Your task to perform on an android device: Show the shopping cart on costco. Add "dell xps" to the cart on costco Image 0: 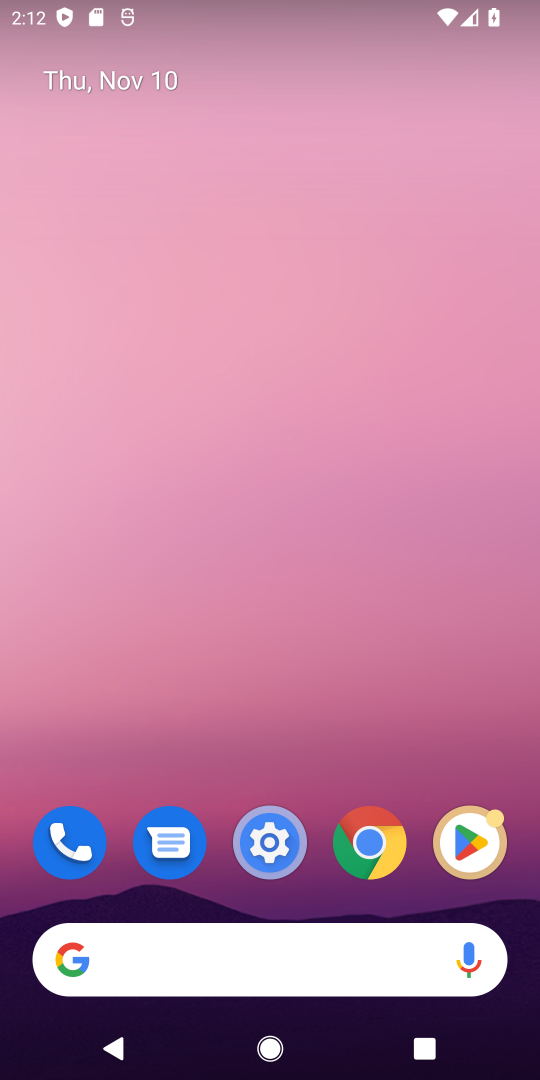
Step 0: press home button
Your task to perform on an android device: Show the shopping cart on costco. Add "dell xps" to the cart on costco Image 1: 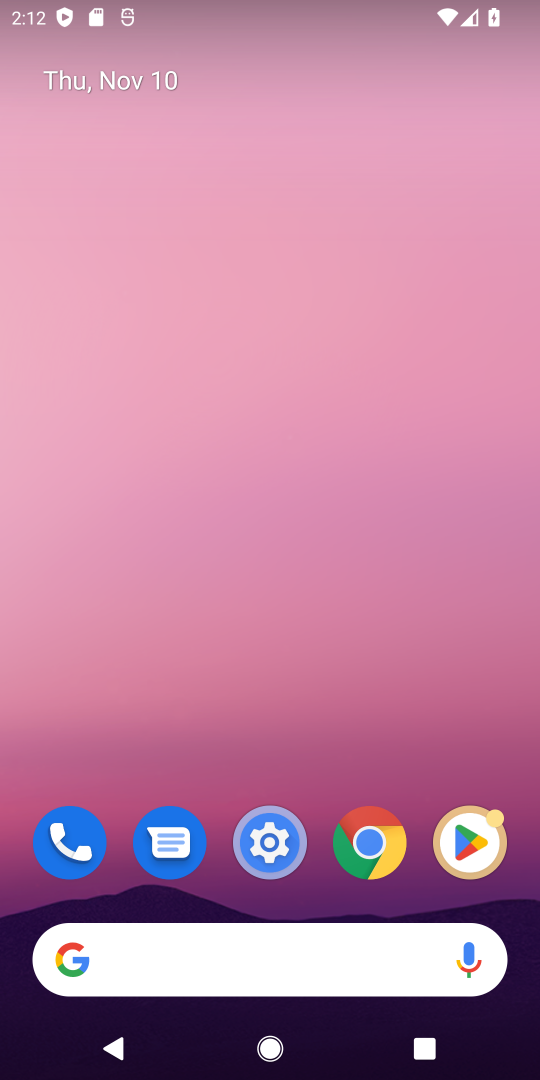
Step 1: click (113, 956)
Your task to perform on an android device: Show the shopping cart on costco. Add "dell xps" to the cart on costco Image 2: 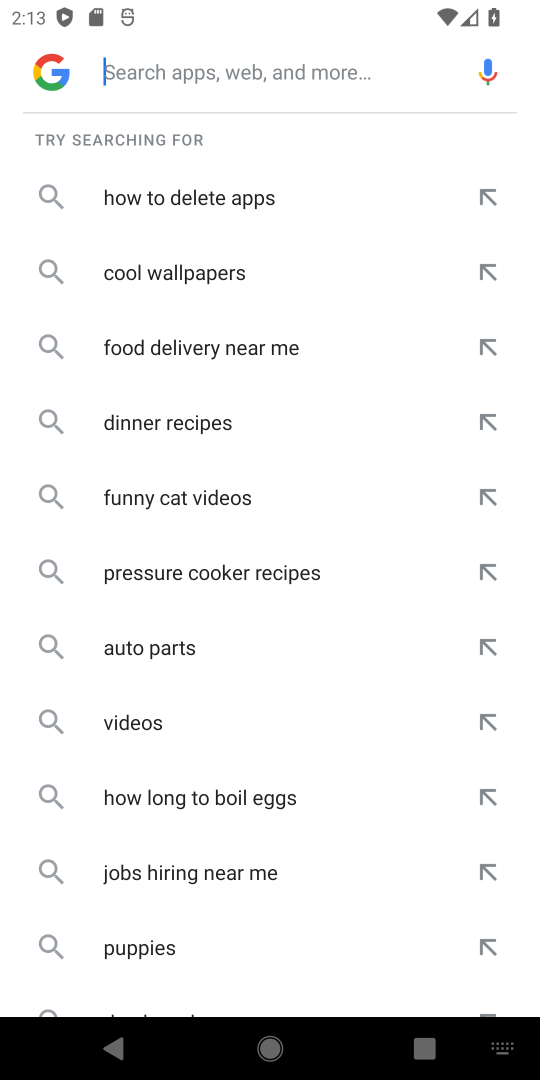
Step 2: type "costco"
Your task to perform on an android device: Show the shopping cart on costco. Add "dell xps" to the cart on costco Image 3: 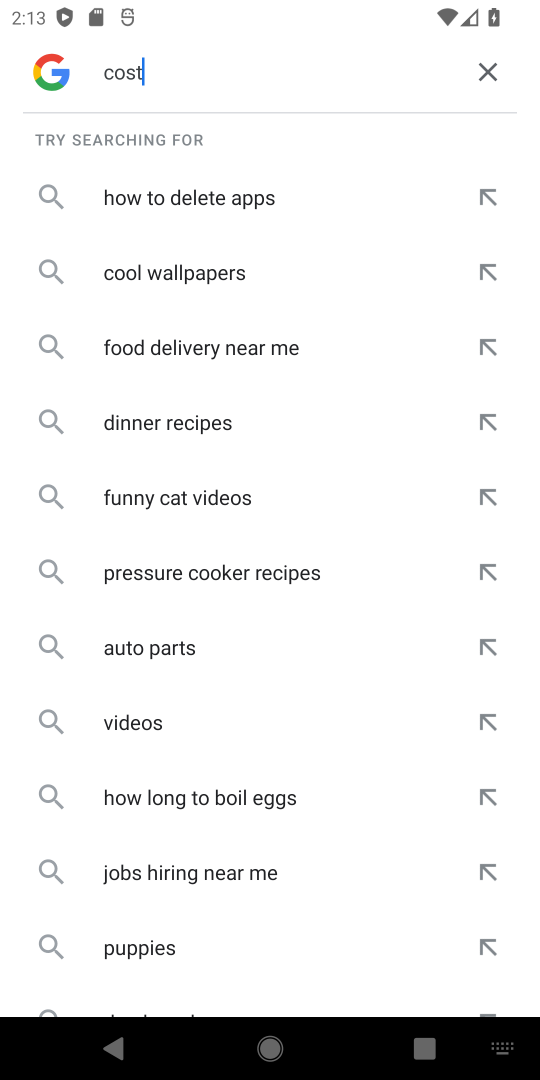
Step 3: press enter
Your task to perform on an android device: Show the shopping cart on costco. Add "dell xps" to the cart on costco Image 4: 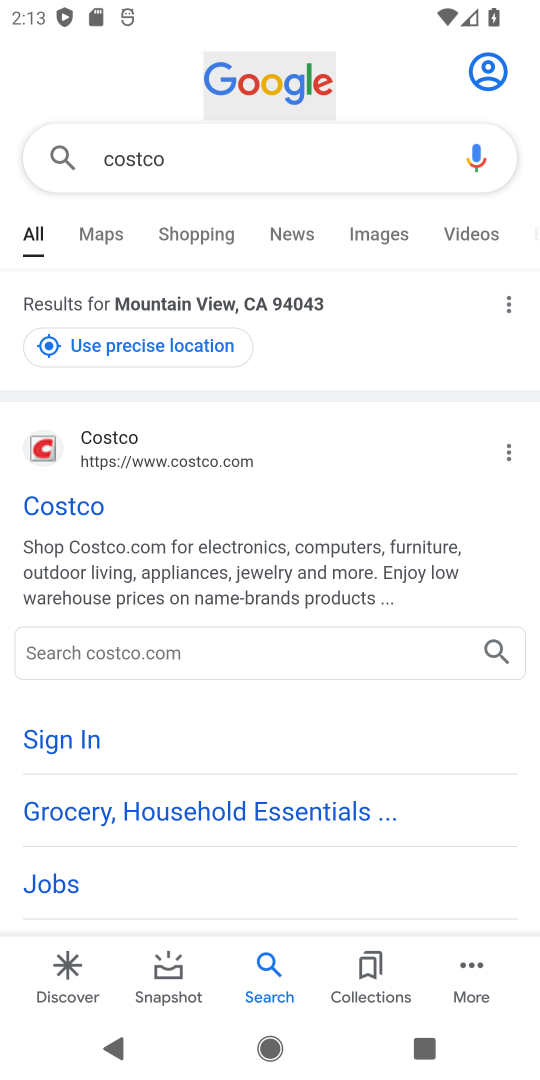
Step 4: click (61, 507)
Your task to perform on an android device: Show the shopping cart on costco. Add "dell xps" to the cart on costco Image 5: 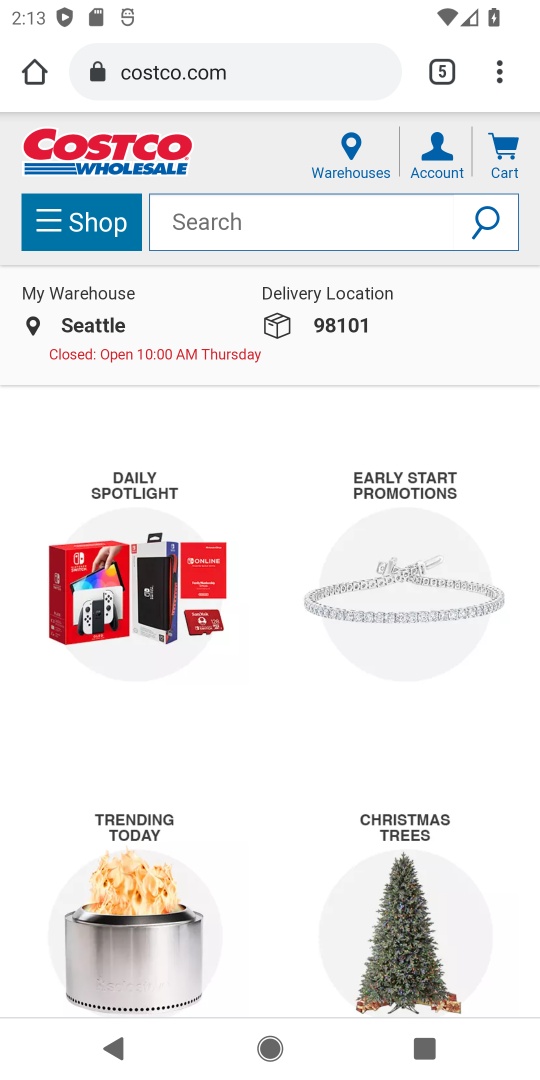
Step 5: click (512, 152)
Your task to perform on an android device: Show the shopping cart on costco. Add "dell xps" to the cart on costco Image 6: 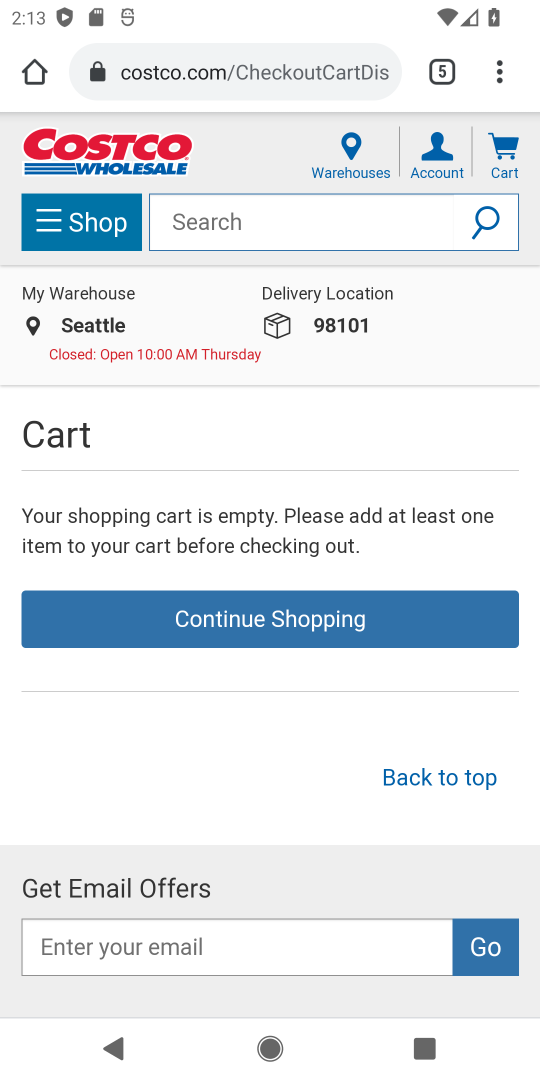
Step 6: click (182, 231)
Your task to perform on an android device: Show the shopping cart on costco. Add "dell xps" to the cart on costco Image 7: 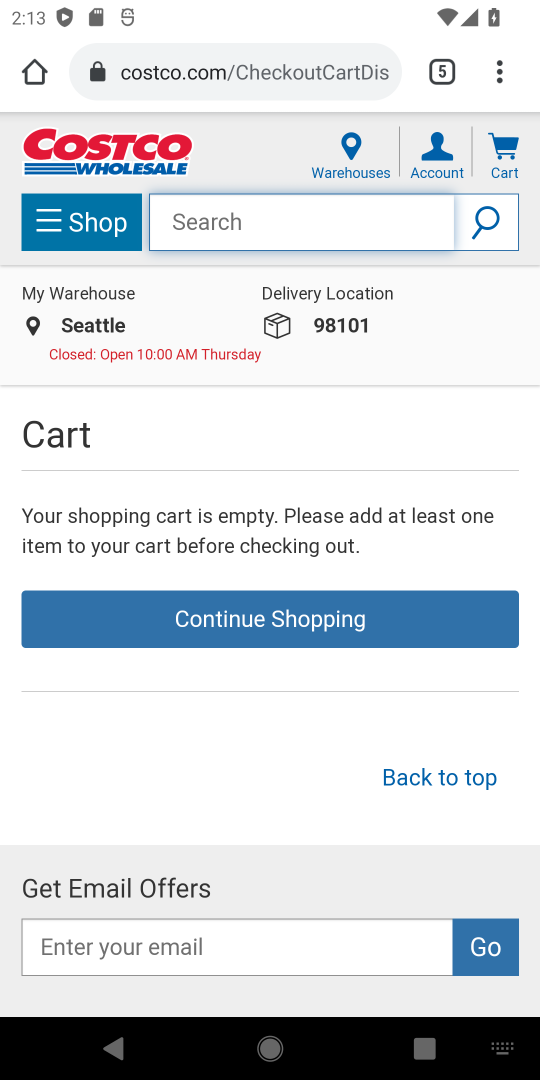
Step 7: type "dell xps"
Your task to perform on an android device: Show the shopping cart on costco. Add "dell xps" to the cart on costco Image 8: 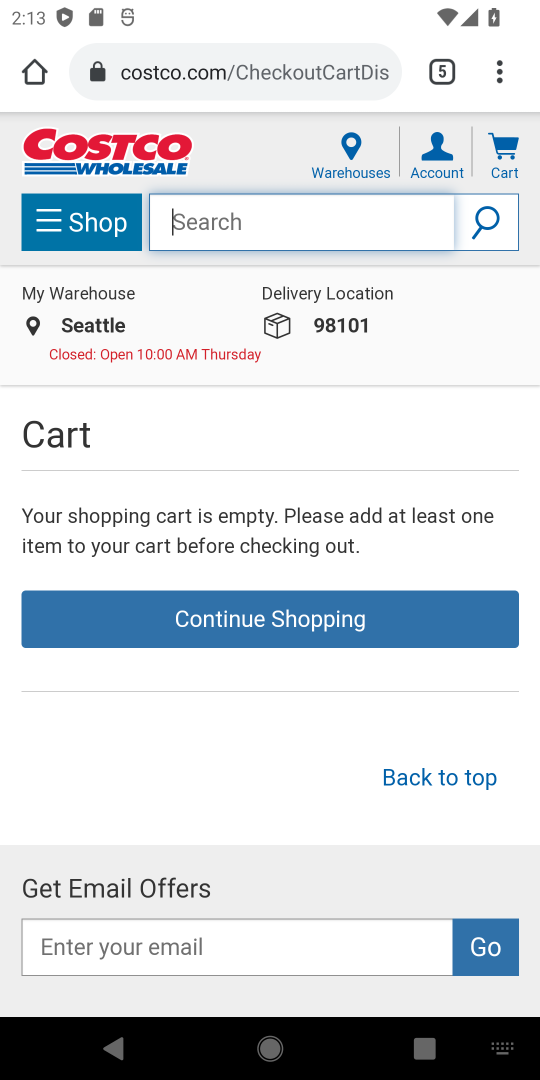
Step 8: press enter
Your task to perform on an android device: Show the shopping cart on costco. Add "dell xps" to the cart on costco Image 9: 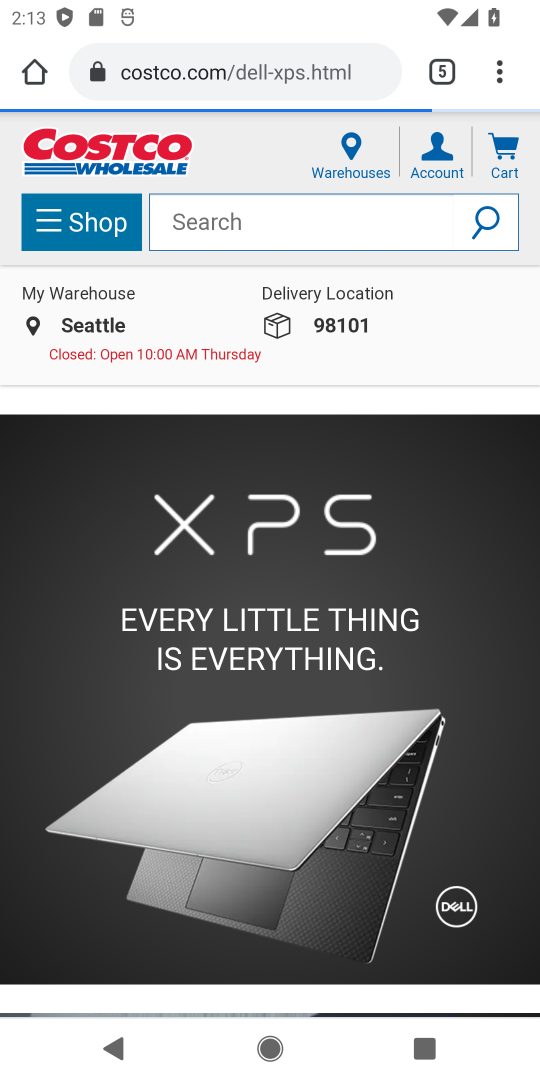
Step 9: drag from (339, 791) to (349, 414)
Your task to perform on an android device: Show the shopping cart on costco. Add "dell xps" to the cart on costco Image 10: 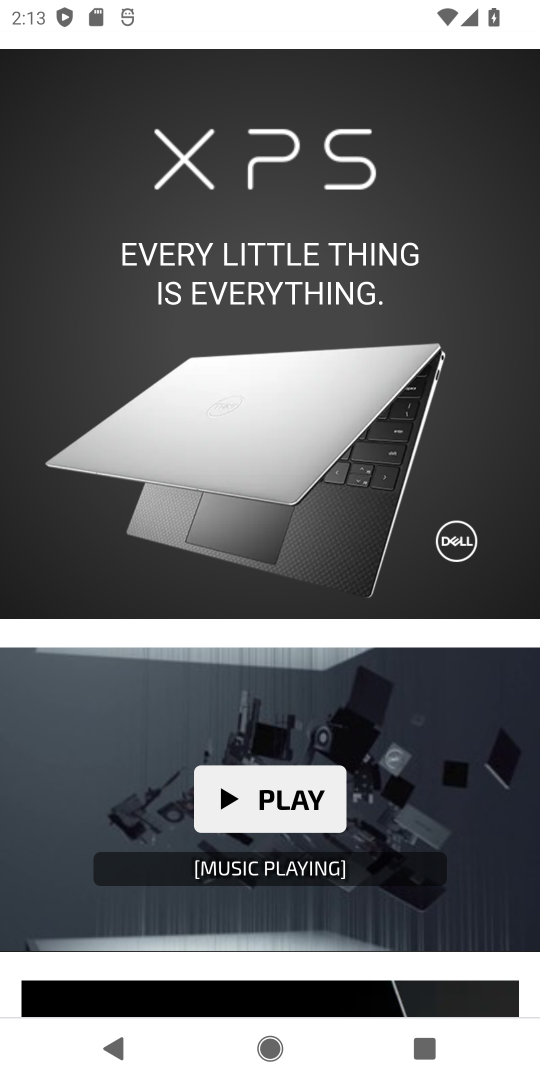
Step 10: drag from (382, 777) to (426, 375)
Your task to perform on an android device: Show the shopping cart on costco. Add "dell xps" to the cart on costco Image 11: 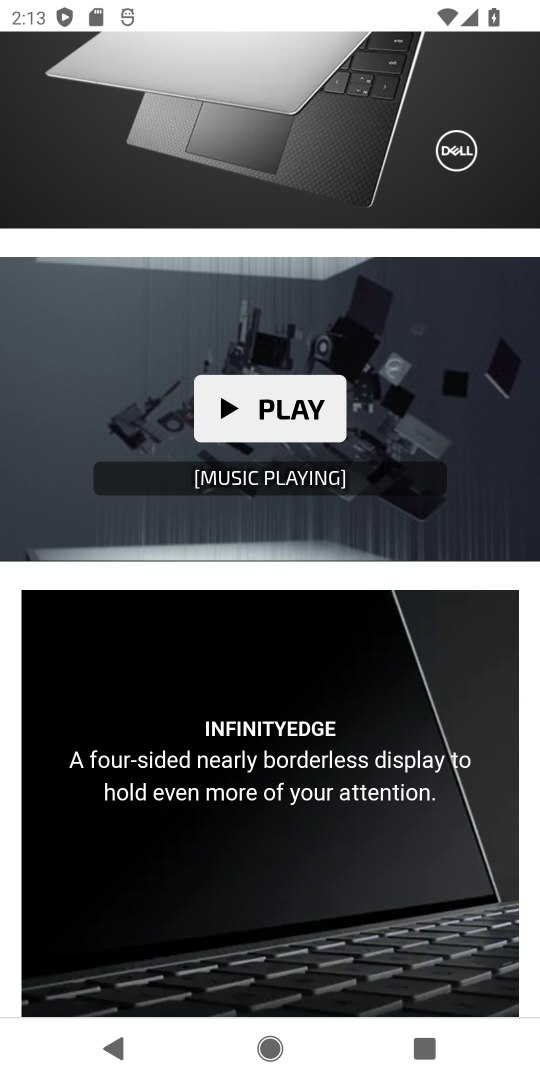
Step 11: drag from (347, 832) to (425, 300)
Your task to perform on an android device: Show the shopping cart on costco. Add "dell xps" to the cart on costco Image 12: 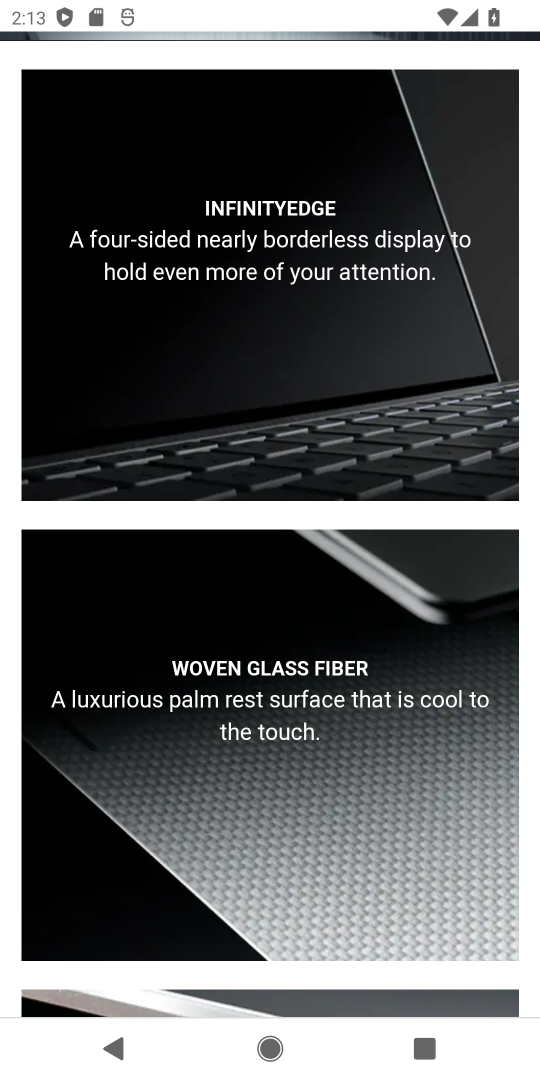
Step 12: drag from (329, 881) to (391, 301)
Your task to perform on an android device: Show the shopping cart on costco. Add "dell xps" to the cart on costco Image 13: 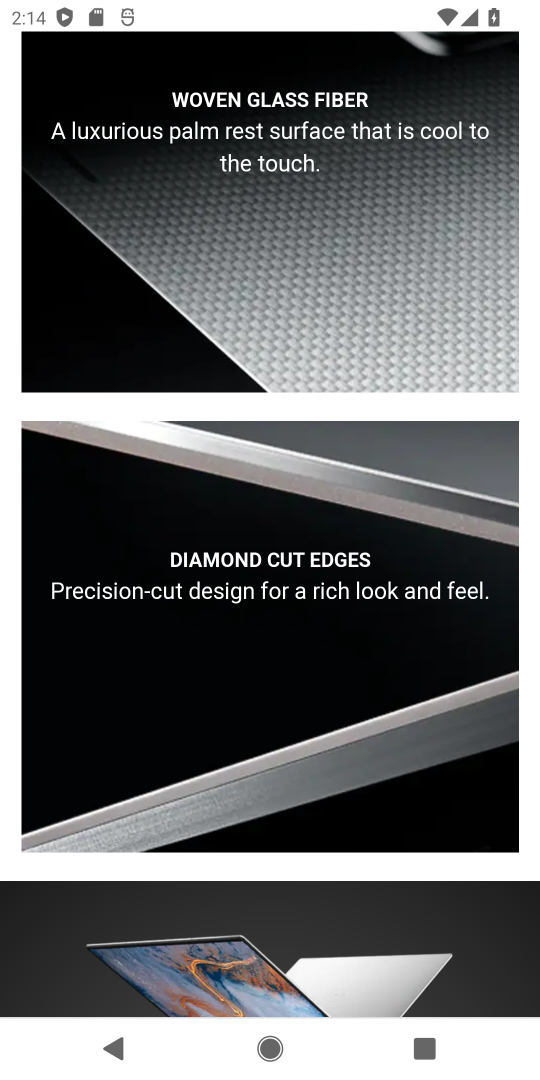
Step 13: drag from (269, 949) to (278, 183)
Your task to perform on an android device: Show the shopping cart on costco. Add "dell xps" to the cart on costco Image 14: 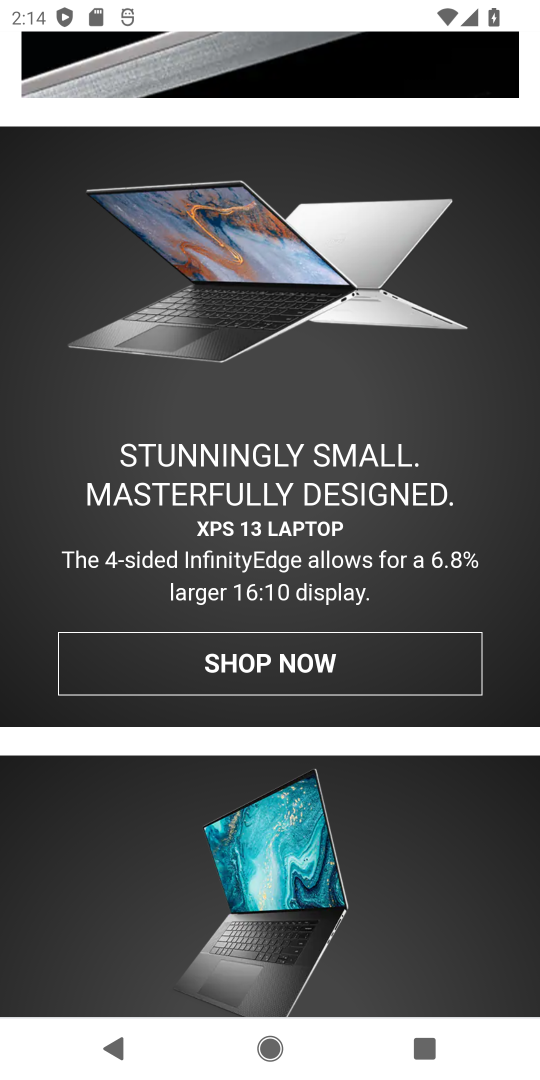
Step 14: drag from (313, 889) to (351, 251)
Your task to perform on an android device: Show the shopping cart on costco. Add "dell xps" to the cart on costco Image 15: 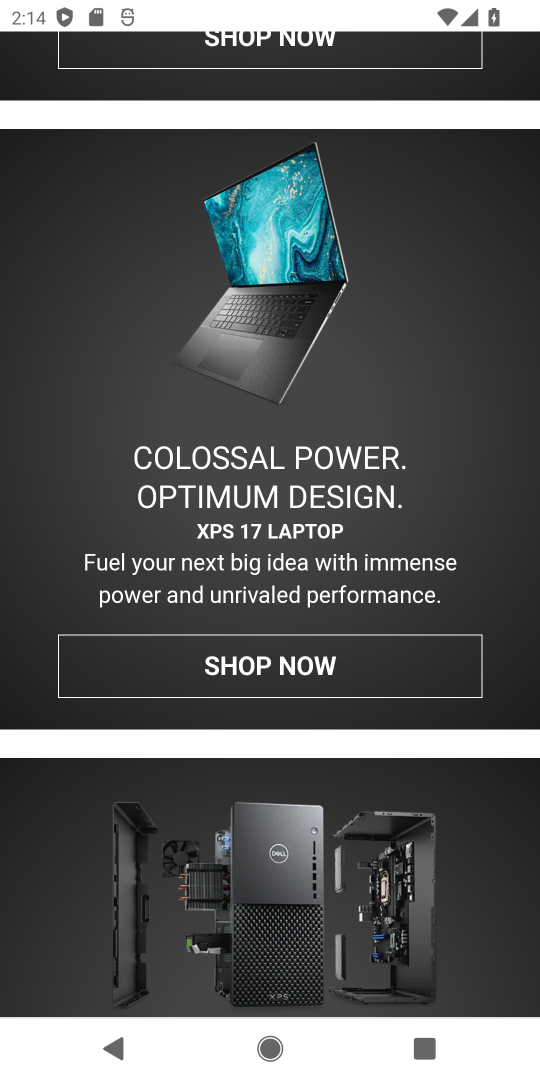
Step 15: drag from (331, 877) to (334, 225)
Your task to perform on an android device: Show the shopping cart on costco. Add "dell xps" to the cart on costco Image 16: 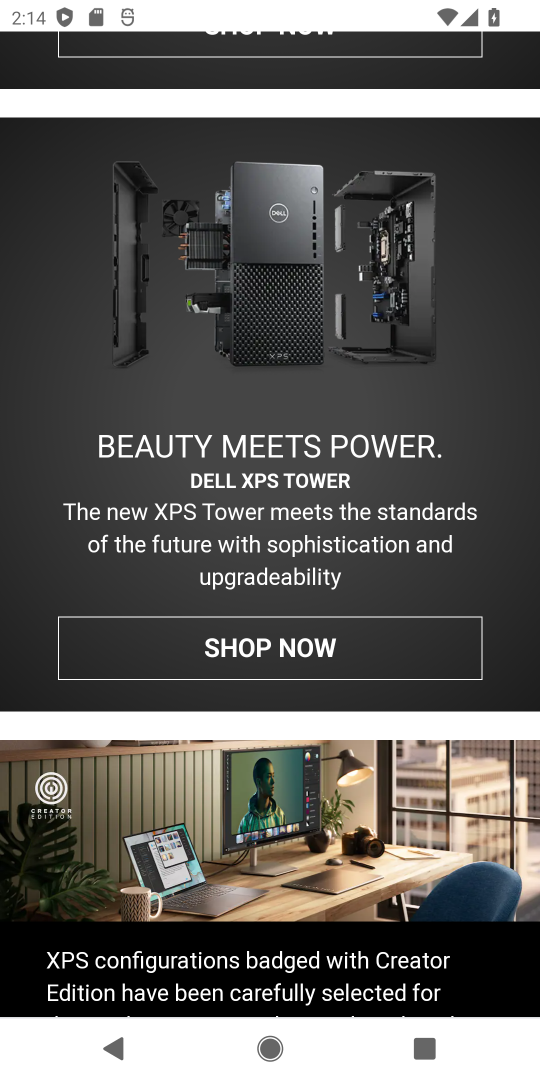
Step 16: drag from (266, 912) to (301, 296)
Your task to perform on an android device: Show the shopping cart on costco. Add "dell xps" to the cart on costco Image 17: 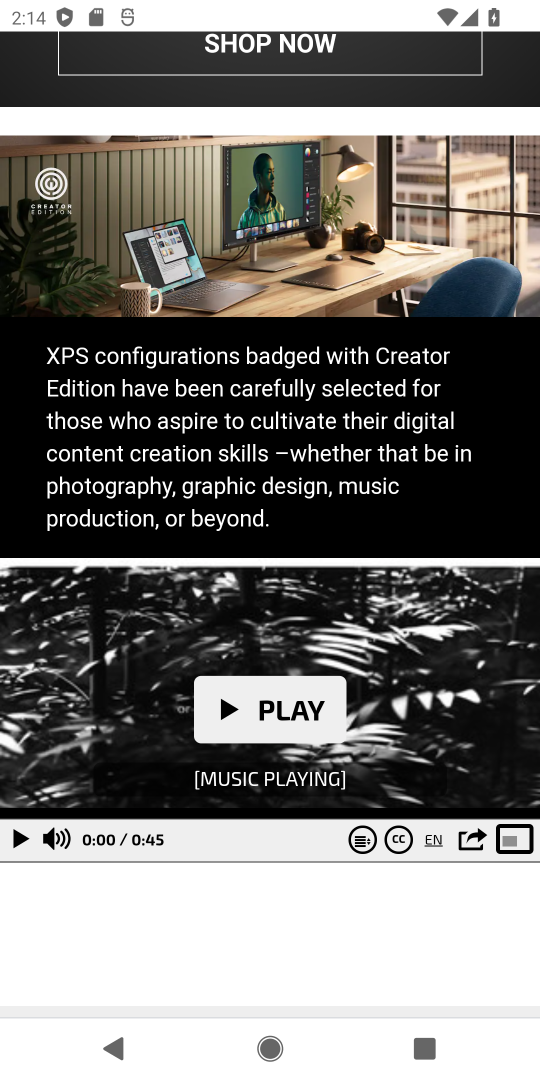
Step 17: drag from (271, 883) to (356, 252)
Your task to perform on an android device: Show the shopping cart on costco. Add "dell xps" to the cart on costco Image 18: 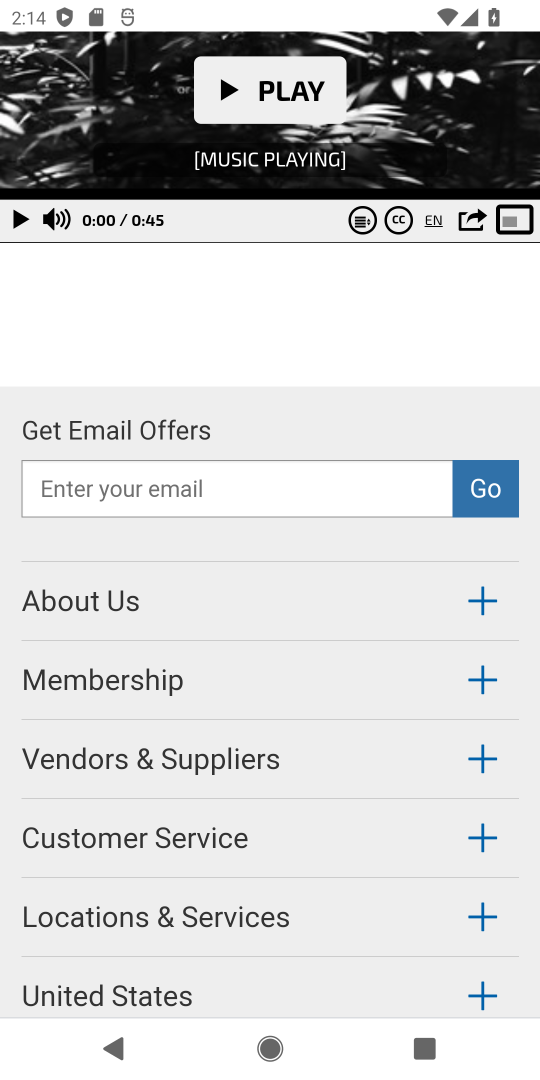
Step 18: drag from (361, 193) to (320, 820)
Your task to perform on an android device: Show the shopping cart on costco. Add "dell xps" to the cart on costco Image 19: 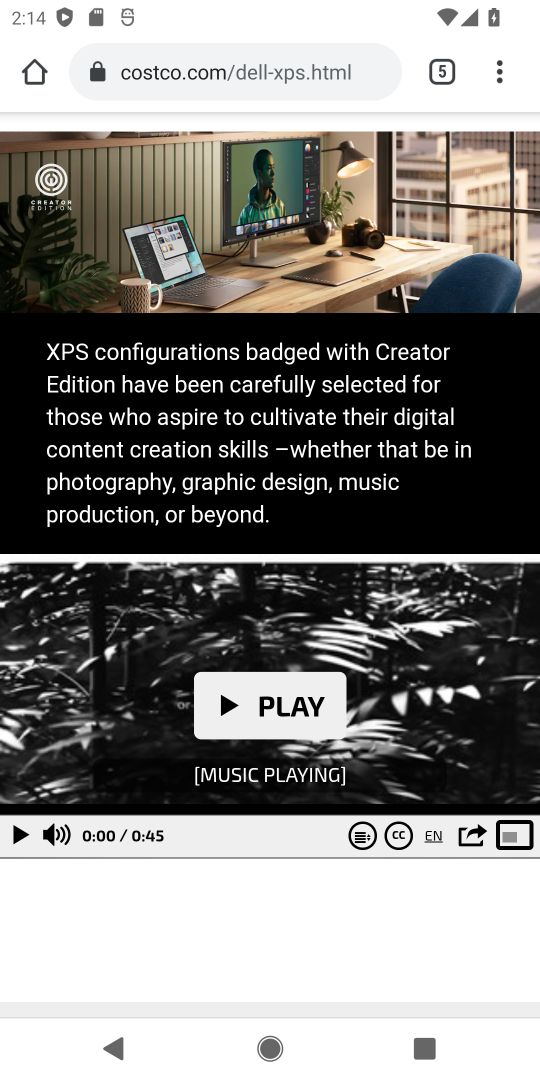
Step 19: drag from (313, 187) to (271, 812)
Your task to perform on an android device: Show the shopping cart on costco. Add "dell xps" to the cart on costco Image 20: 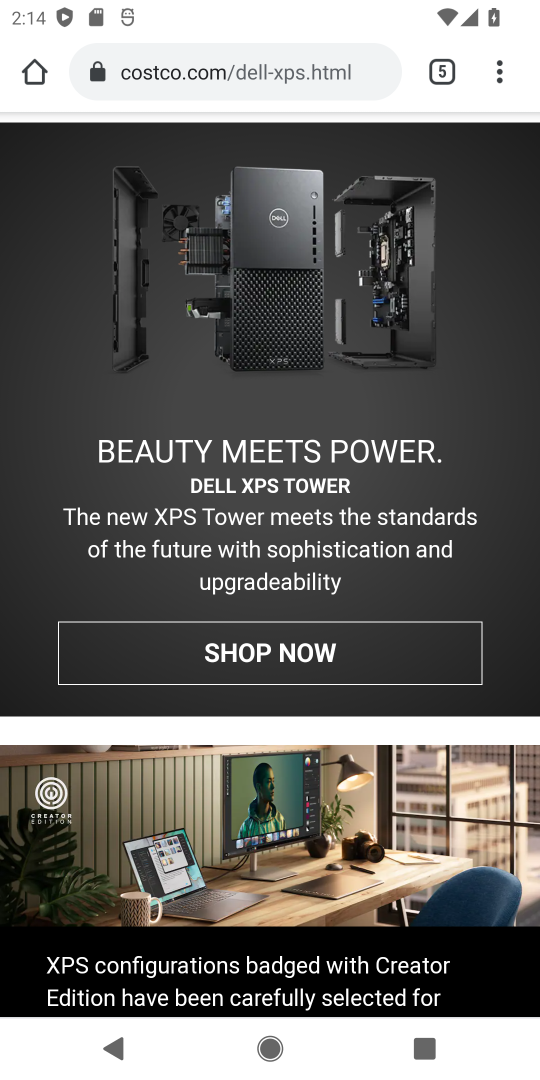
Step 20: drag from (359, 375) to (342, 842)
Your task to perform on an android device: Show the shopping cart on costco. Add "dell xps" to the cart on costco Image 21: 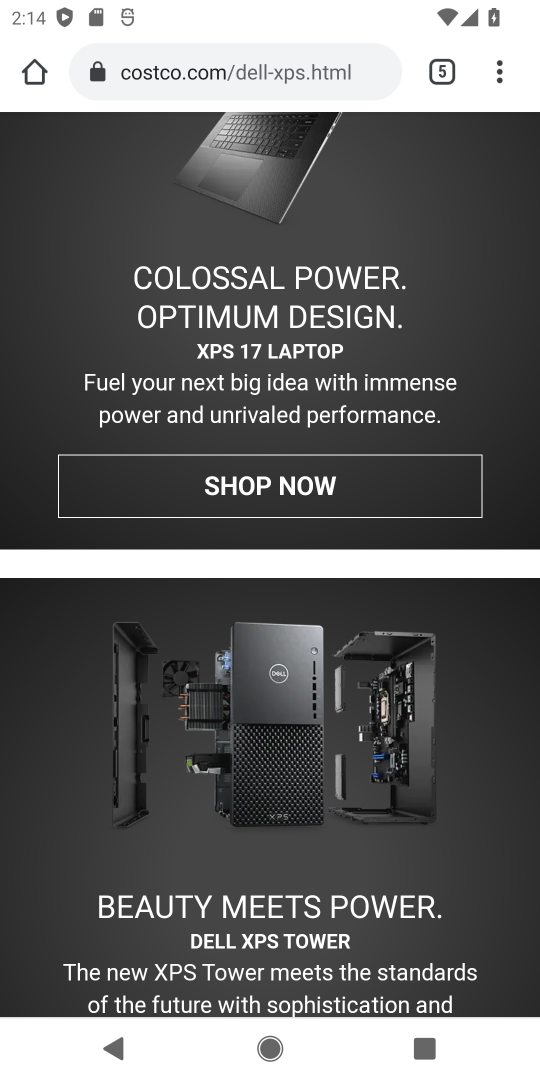
Step 21: drag from (348, 272) to (340, 921)
Your task to perform on an android device: Show the shopping cart on costco. Add "dell xps" to the cart on costco Image 22: 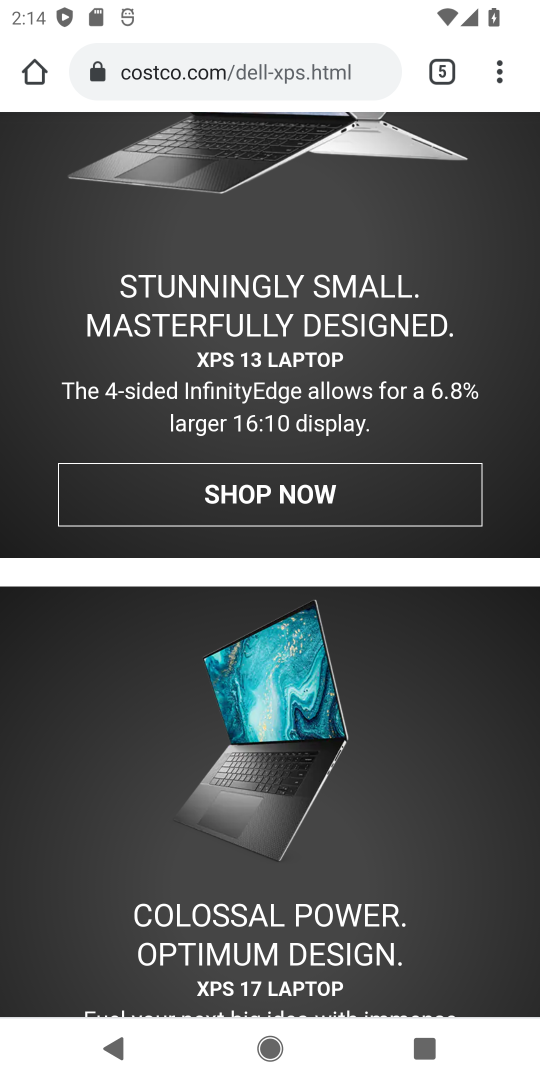
Step 22: click (337, 499)
Your task to perform on an android device: Show the shopping cart on costco. Add "dell xps" to the cart on costco Image 23: 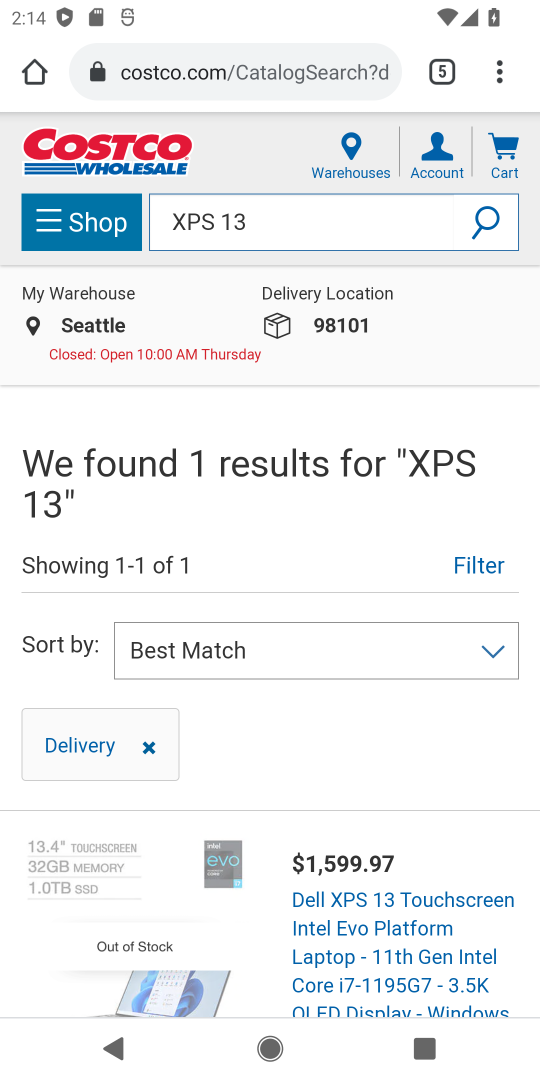
Step 23: task complete